Your task to perform on an android device: Open the Play Movies app and select the watchlist tab. Image 0: 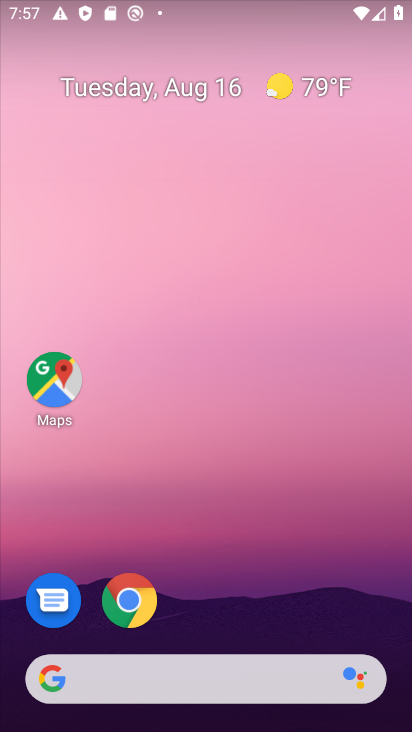
Step 0: drag from (232, 603) to (328, 34)
Your task to perform on an android device: Open the Play Movies app and select the watchlist tab. Image 1: 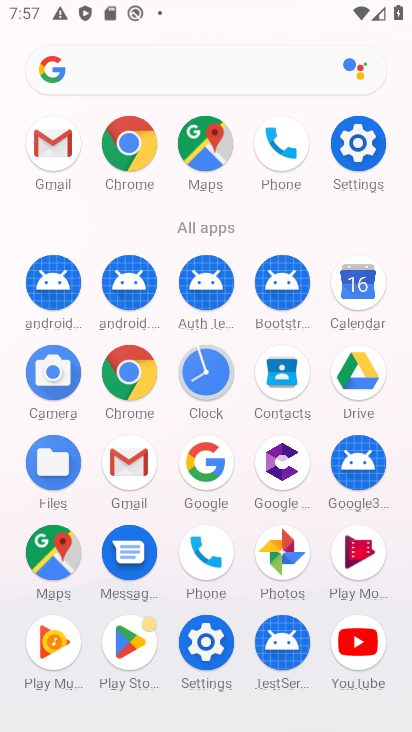
Step 1: click (370, 562)
Your task to perform on an android device: Open the Play Movies app and select the watchlist tab. Image 2: 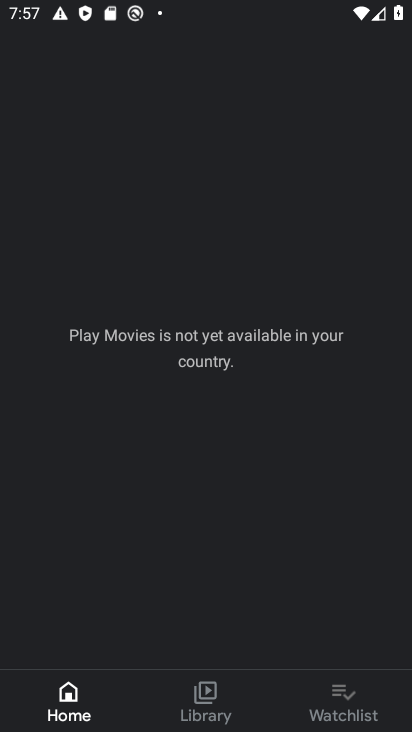
Step 2: click (349, 706)
Your task to perform on an android device: Open the Play Movies app and select the watchlist tab. Image 3: 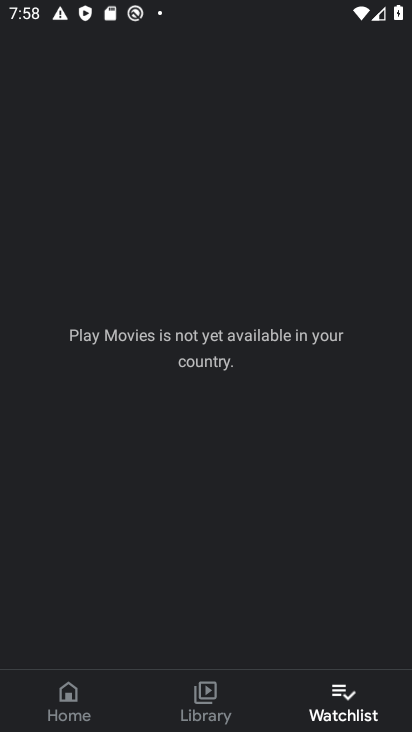
Step 3: task complete